Your task to perform on an android device: Clear all items from cart on ebay. Image 0: 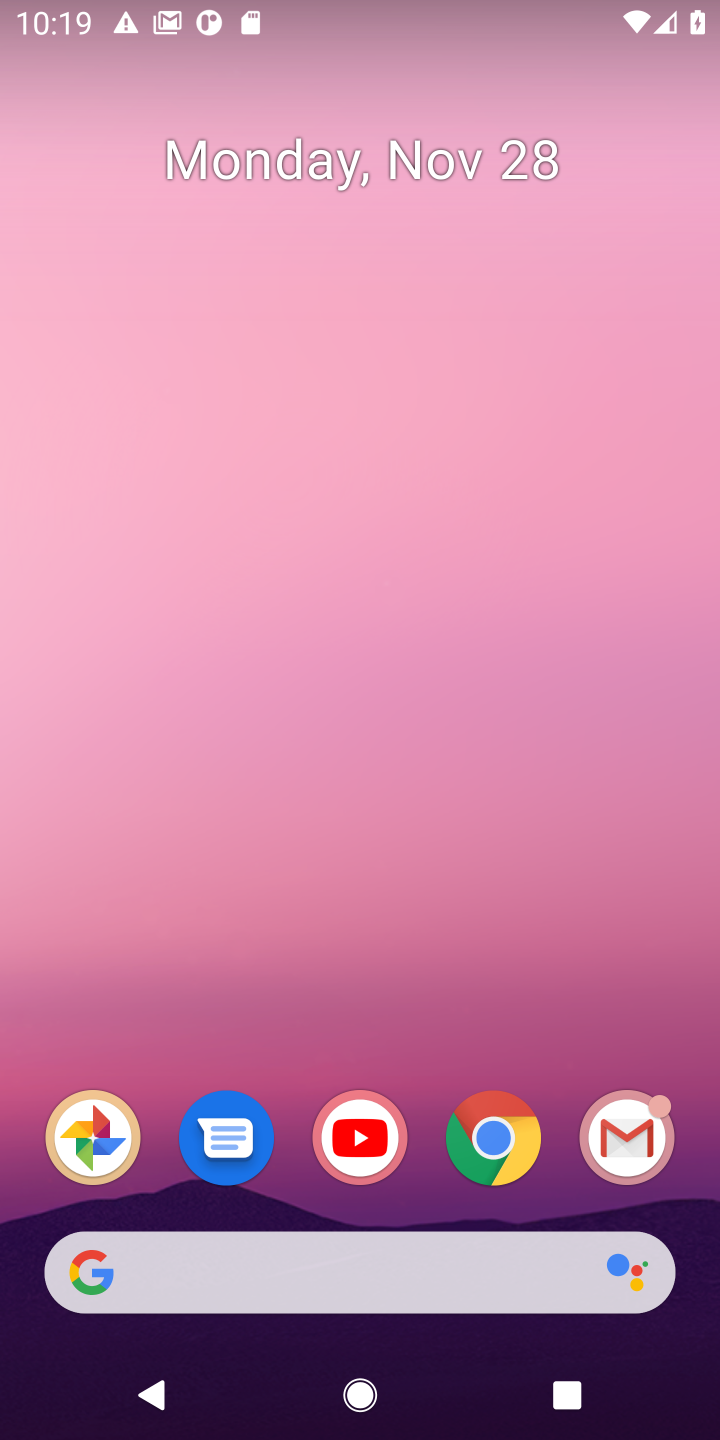
Step 0: click (496, 1116)
Your task to perform on an android device: Clear all items from cart on ebay. Image 1: 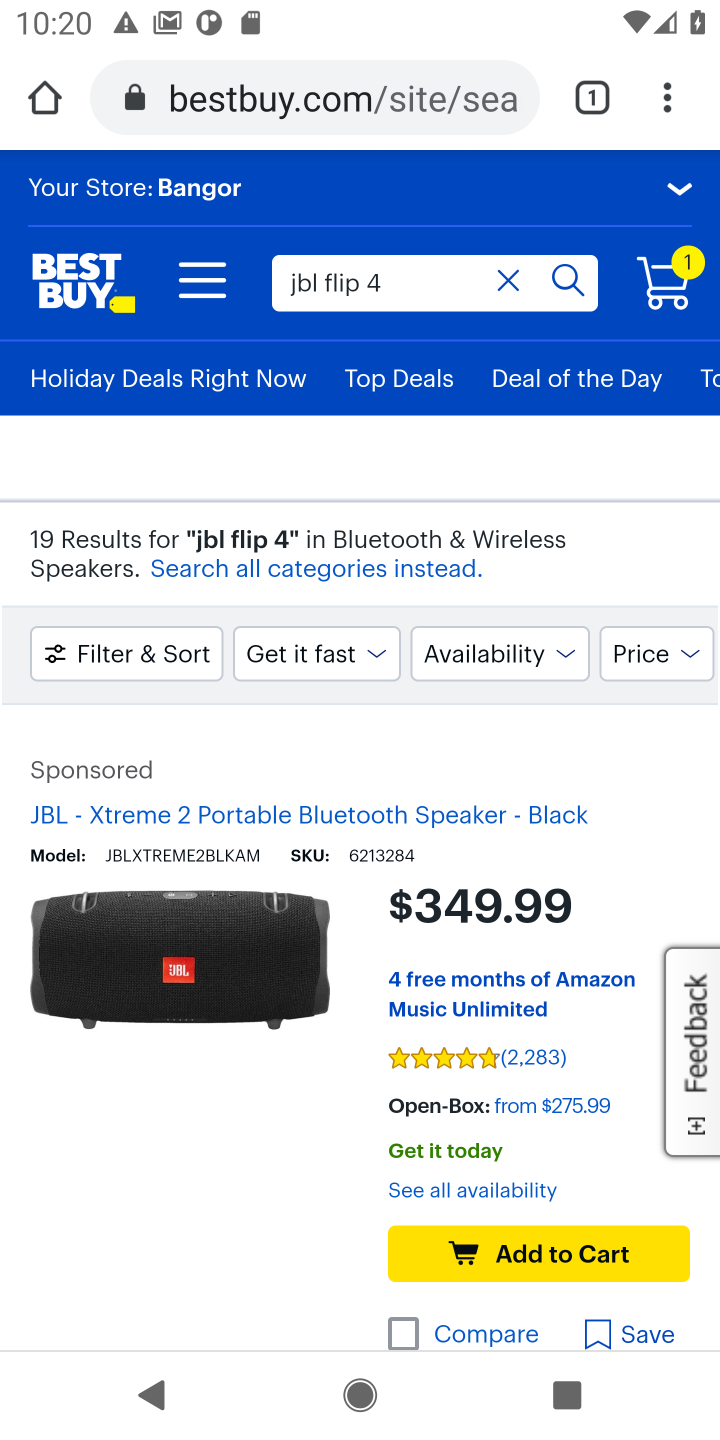
Step 1: click (657, 292)
Your task to perform on an android device: Clear all items from cart on ebay. Image 2: 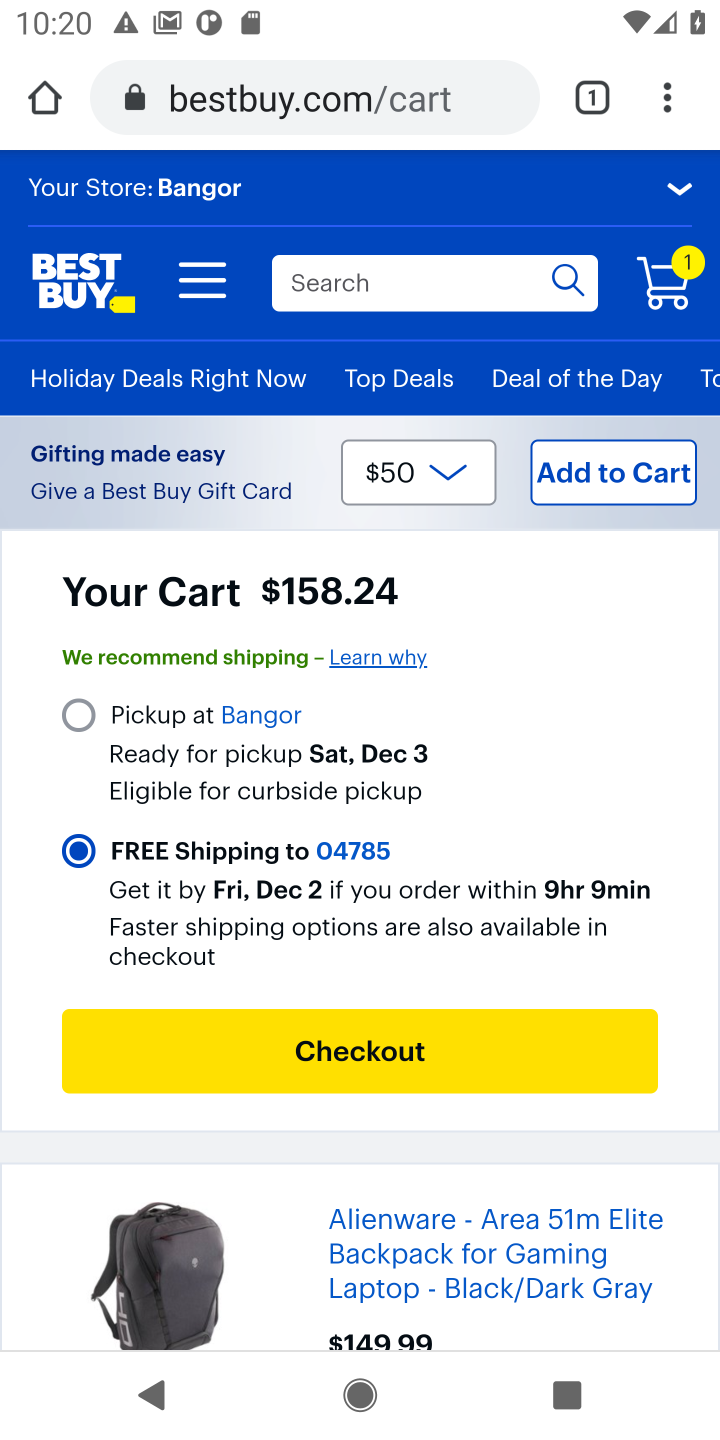
Step 2: drag from (682, 1104) to (715, 682)
Your task to perform on an android device: Clear all items from cart on ebay. Image 3: 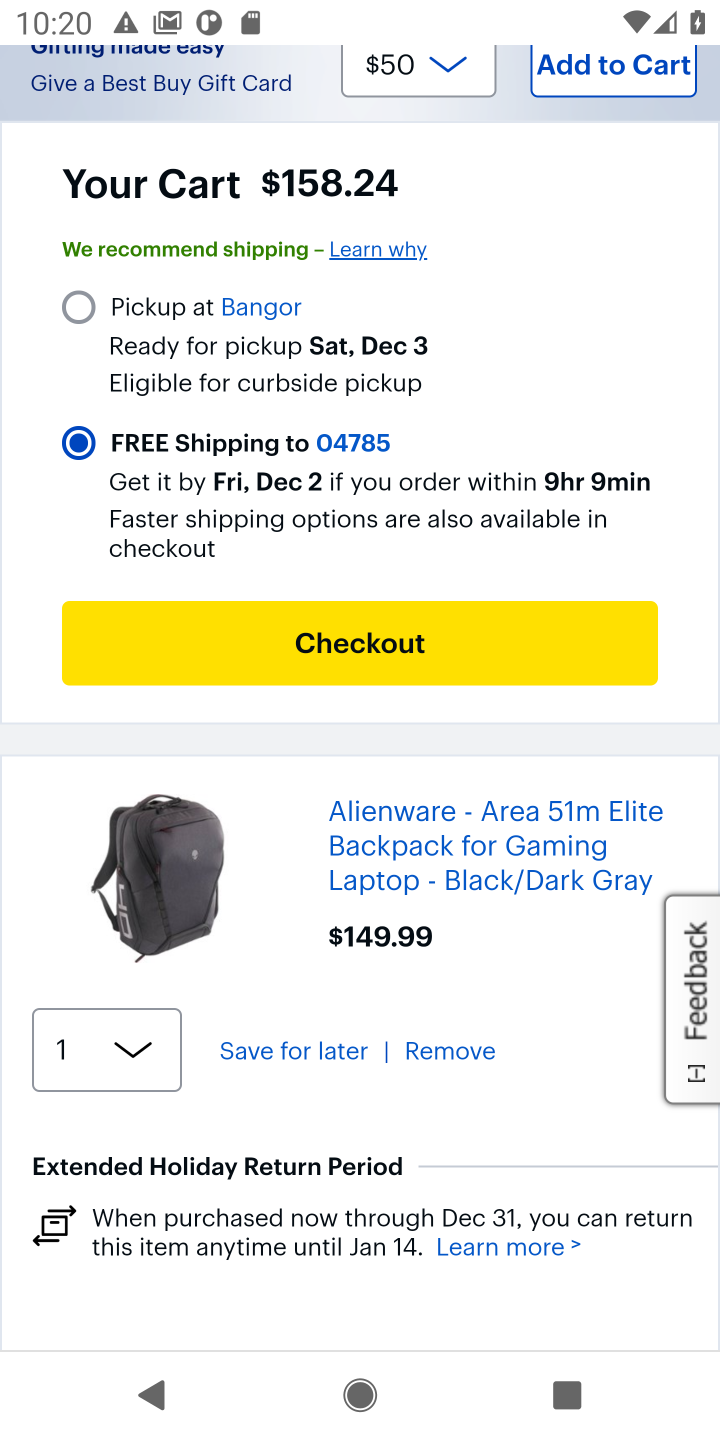
Step 3: click (441, 1060)
Your task to perform on an android device: Clear all items from cart on ebay. Image 4: 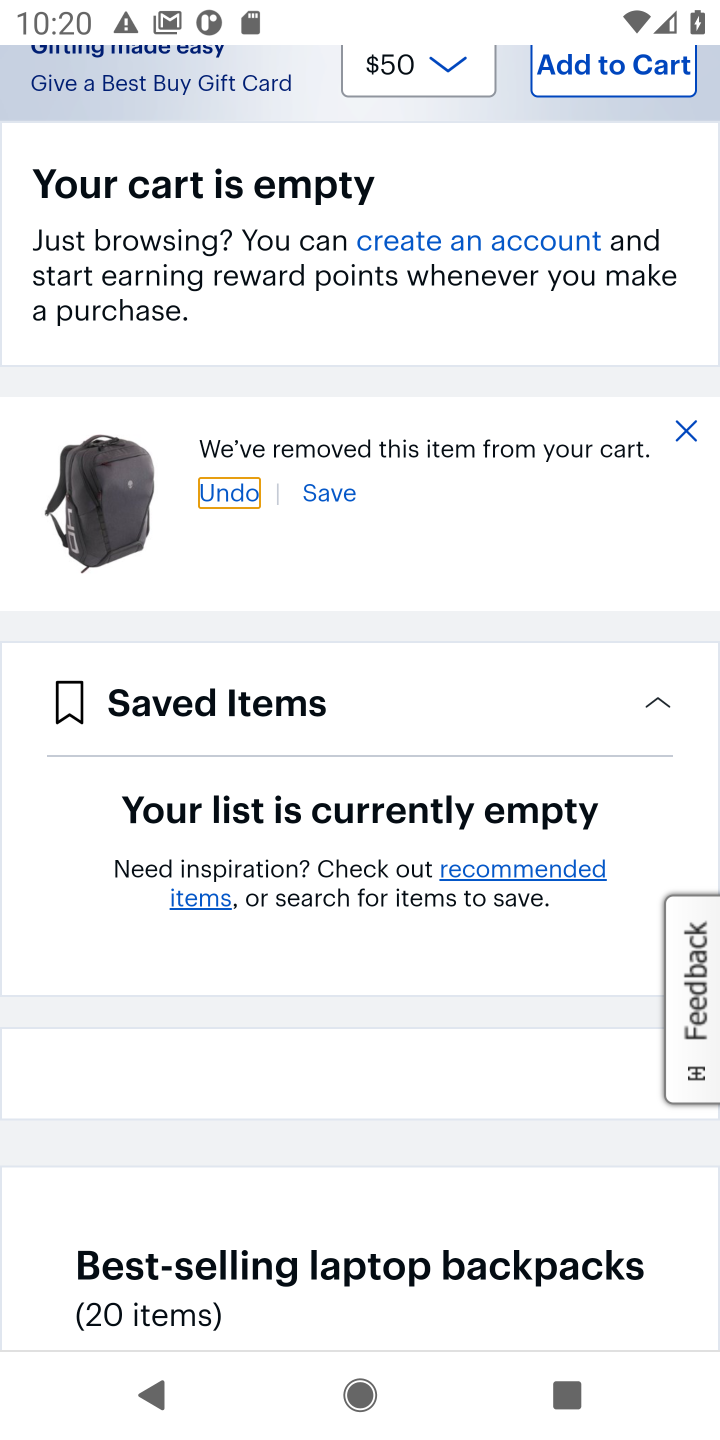
Step 4: task complete